Your task to perform on an android device: turn on showing notifications on the lock screen Image 0: 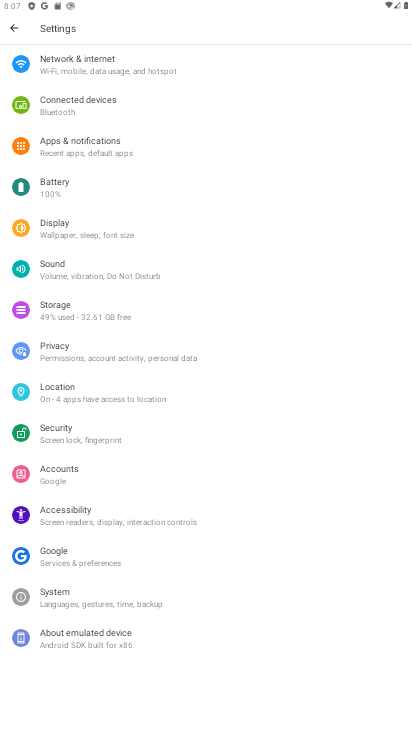
Step 0: click (128, 398)
Your task to perform on an android device: turn on showing notifications on the lock screen Image 1: 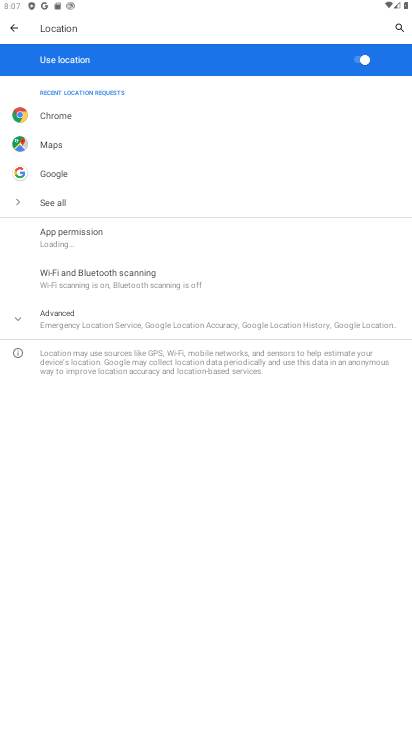
Step 1: task complete